Your task to perform on an android device: Search for Mexican restaurants on Maps Image 0: 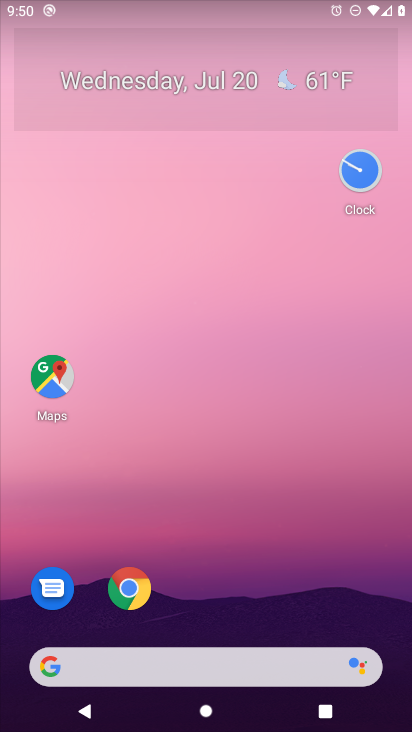
Step 0: click (45, 383)
Your task to perform on an android device: Search for Mexican restaurants on Maps Image 1: 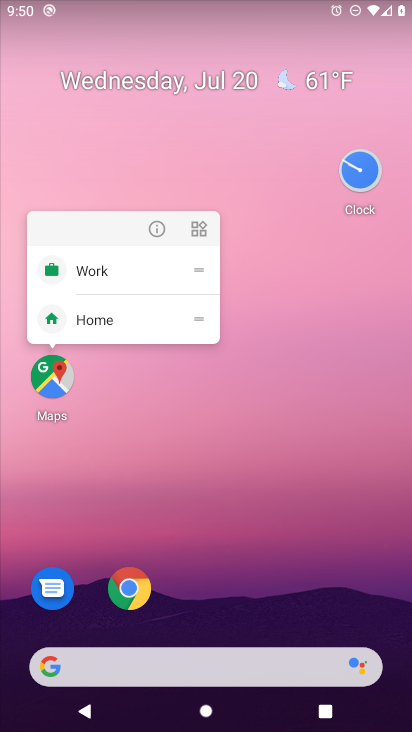
Step 1: click (45, 384)
Your task to perform on an android device: Search for Mexican restaurants on Maps Image 2: 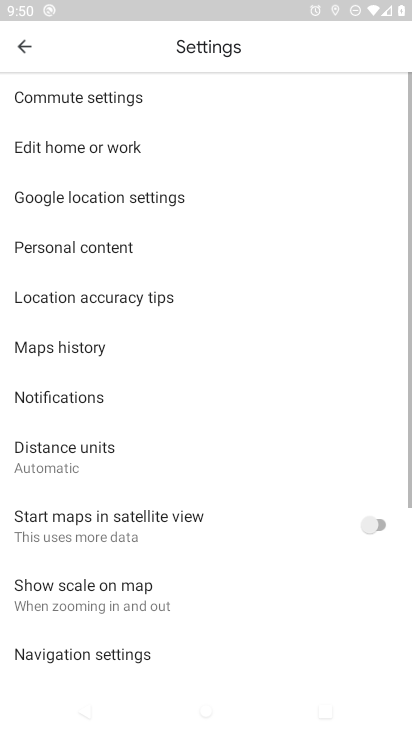
Step 2: click (6, 54)
Your task to perform on an android device: Search for Mexican restaurants on Maps Image 3: 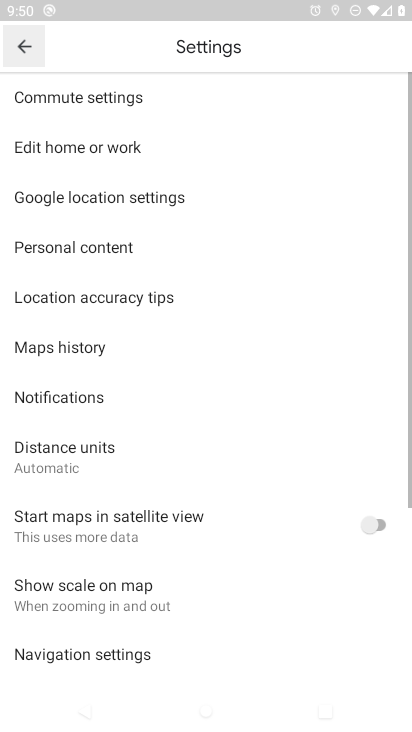
Step 3: click (15, 48)
Your task to perform on an android device: Search for Mexican restaurants on Maps Image 4: 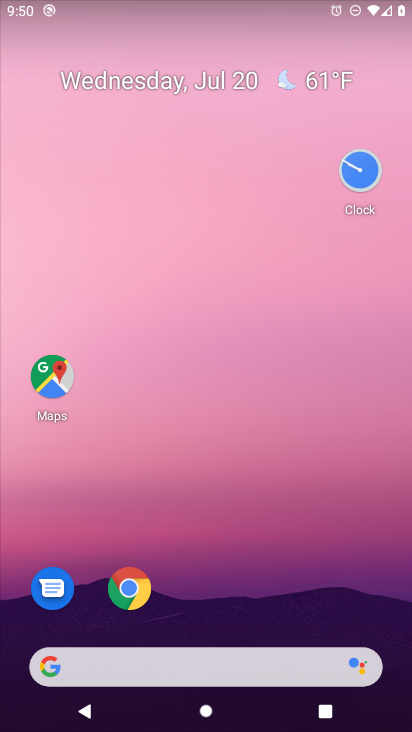
Step 4: click (53, 378)
Your task to perform on an android device: Search for Mexican restaurants on Maps Image 5: 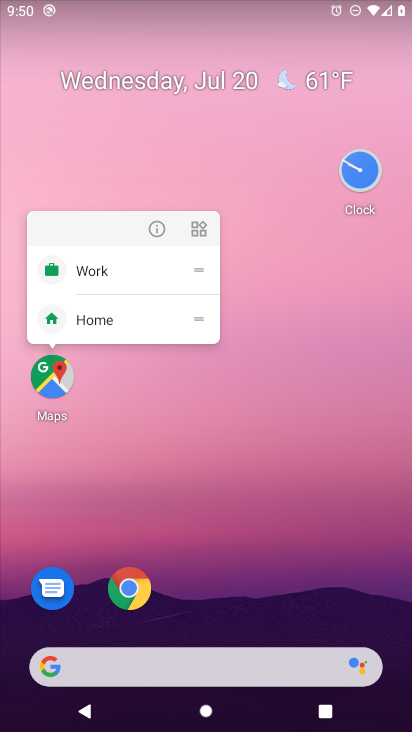
Step 5: click (37, 412)
Your task to perform on an android device: Search for Mexican restaurants on Maps Image 6: 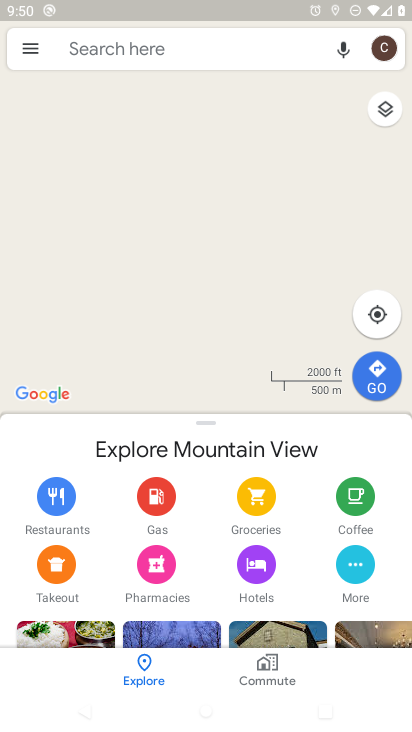
Step 6: click (102, 51)
Your task to perform on an android device: Search for Mexican restaurants on Maps Image 7: 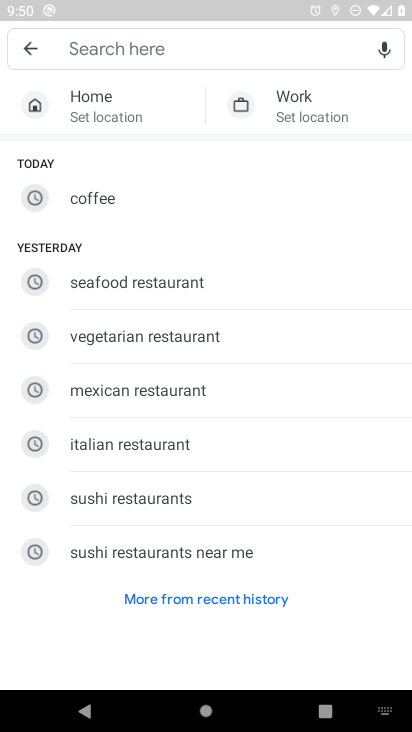
Step 7: type "Mexican restaurants"
Your task to perform on an android device: Search for Mexican restaurants on Maps Image 8: 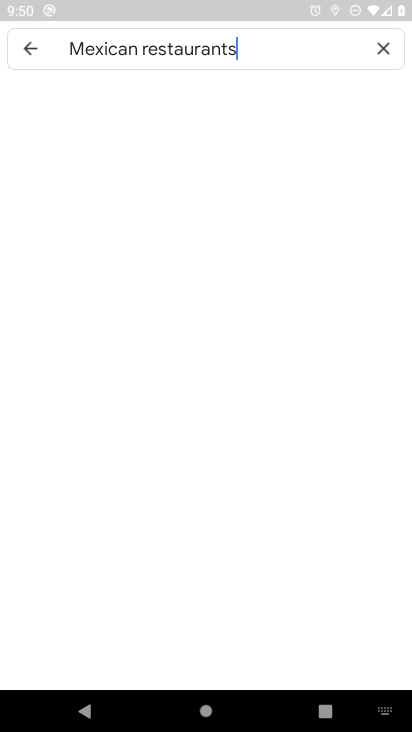
Step 8: type ""
Your task to perform on an android device: Search for Mexican restaurants on Maps Image 9: 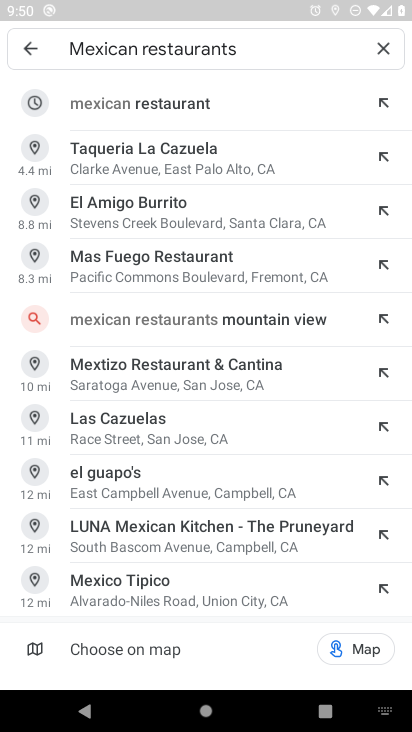
Step 9: click (191, 106)
Your task to perform on an android device: Search for Mexican restaurants on Maps Image 10: 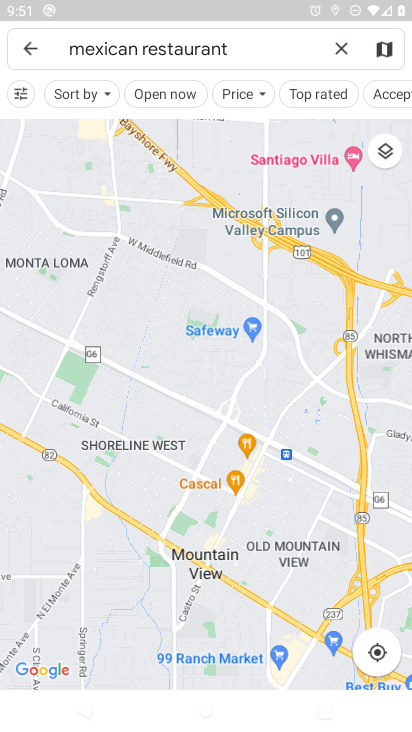
Step 10: task complete